Your task to perform on an android device: turn on wifi Image 0: 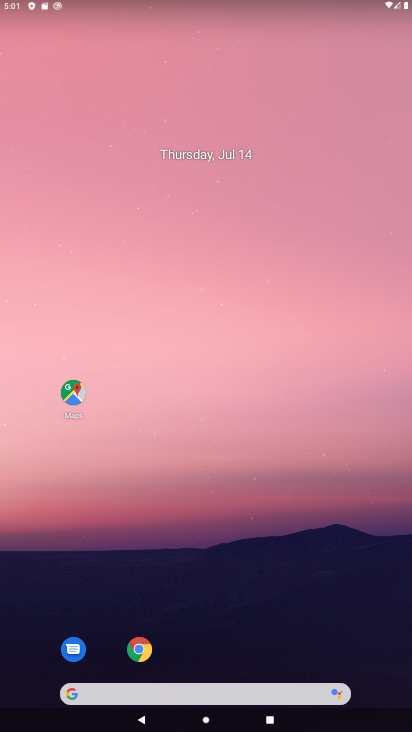
Step 0: drag from (35, 5) to (190, 596)
Your task to perform on an android device: turn on wifi Image 1: 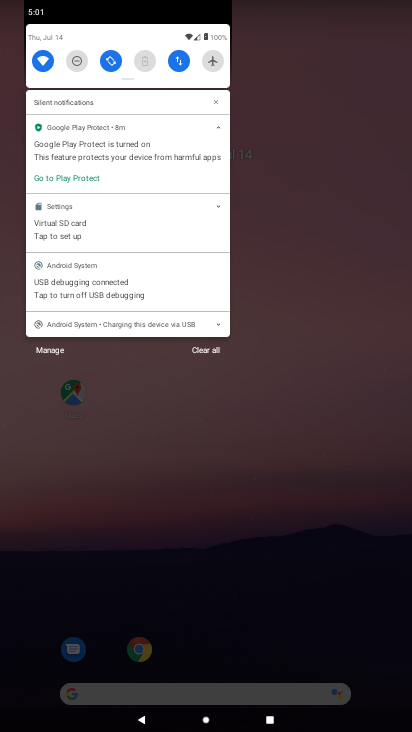
Step 1: task complete